Your task to perform on an android device: turn on translation in the chrome app Image 0: 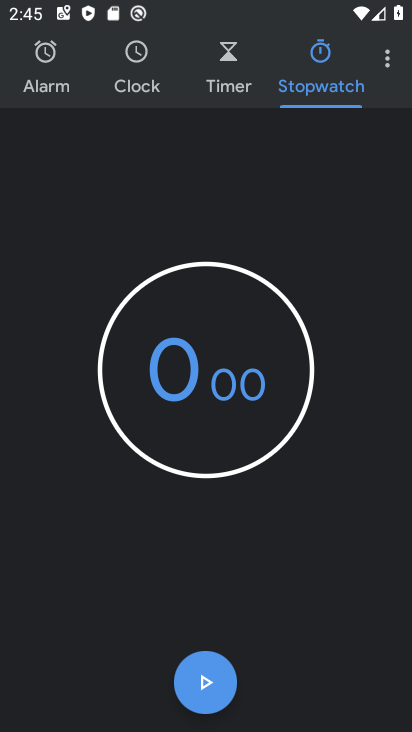
Step 0: press back button
Your task to perform on an android device: turn on translation in the chrome app Image 1: 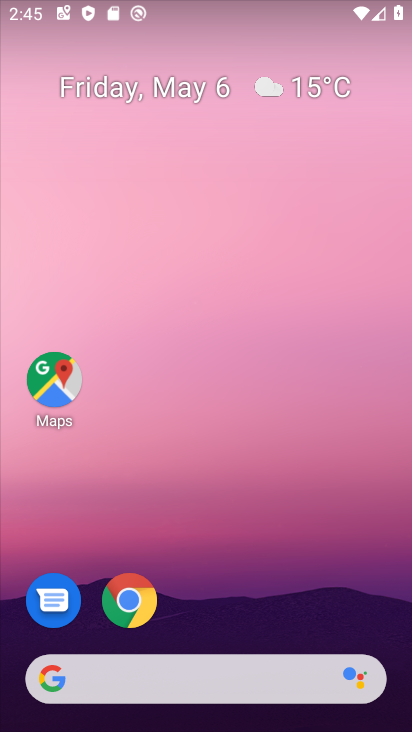
Step 1: drag from (255, 598) to (239, 24)
Your task to perform on an android device: turn on translation in the chrome app Image 2: 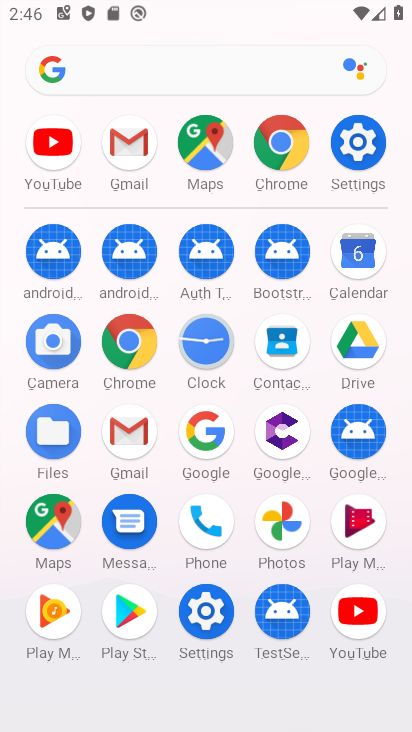
Step 2: click (121, 338)
Your task to perform on an android device: turn on translation in the chrome app Image 3: 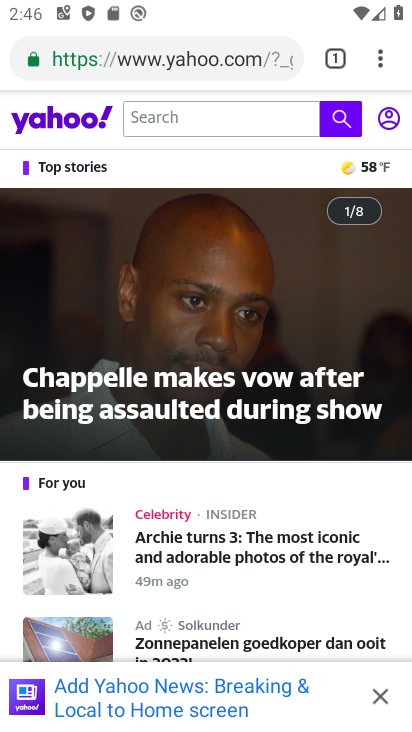
Step 3: drag from (382, 58) to (198, 621)
Your task to perform on an android device: turn on translation in the chrome app Image 4: 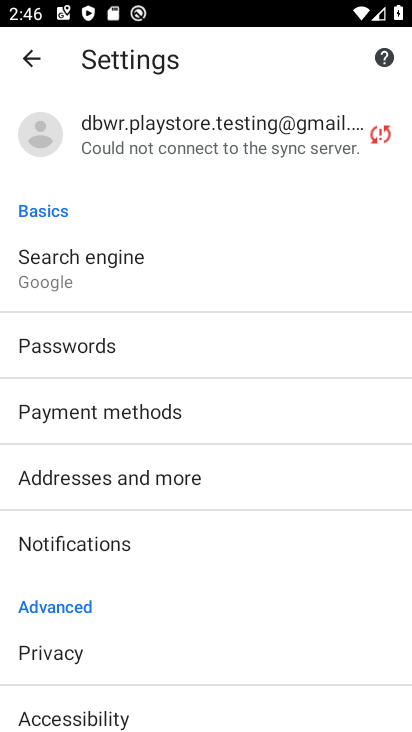
Step 4: drag from (239, 631) to (262, 181)
Your task to perform on an android device: turn on translation in the chrome app Image 5: 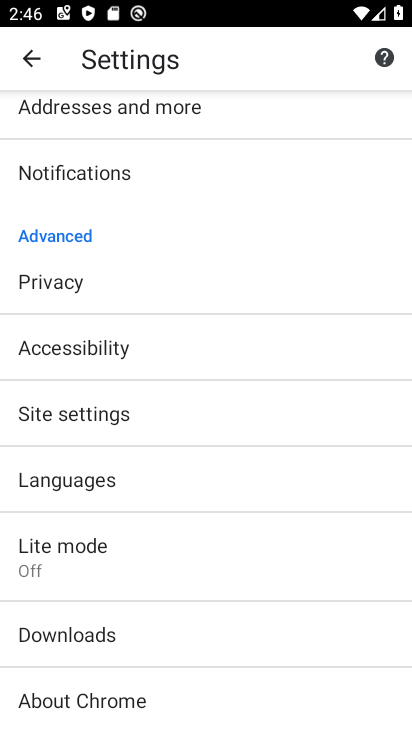
Step 5: drag from (227, 550) to (266, 184)
Your task to perform on an android device: turn on translation in the chrome app Image 6: 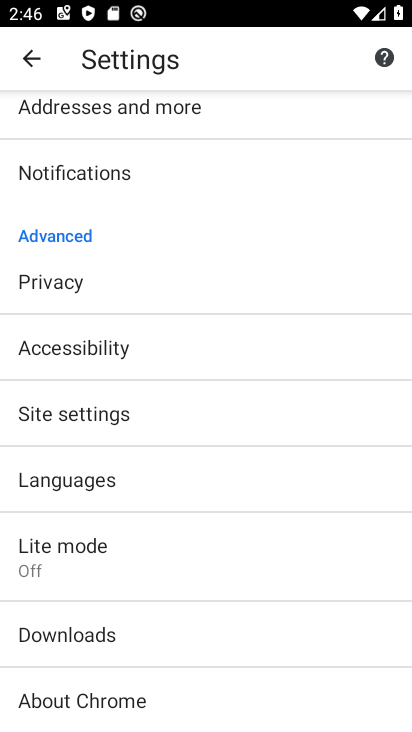
Step 6: click (116, 472)
Your task to perform on an android device: turn on translation in the chrome app Image 7: 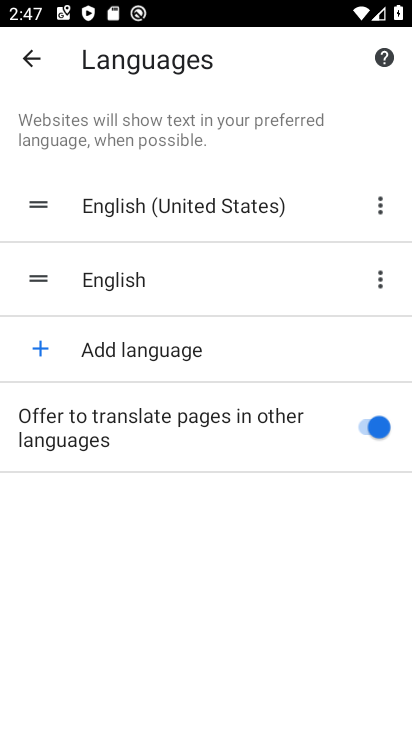
Step 7: task complete